Your task to perform on an android device: Go to accessibility settings Image 0: 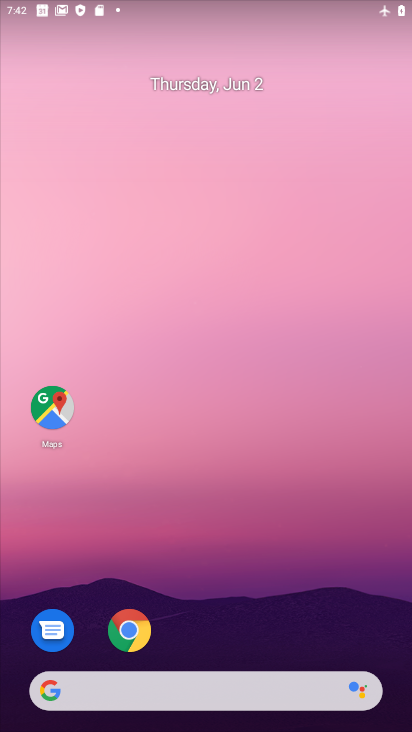
Step 0: drag from (138, 725) to (92, 23)
Your task to perform on an android device: Go to accessibility settings Image 1: 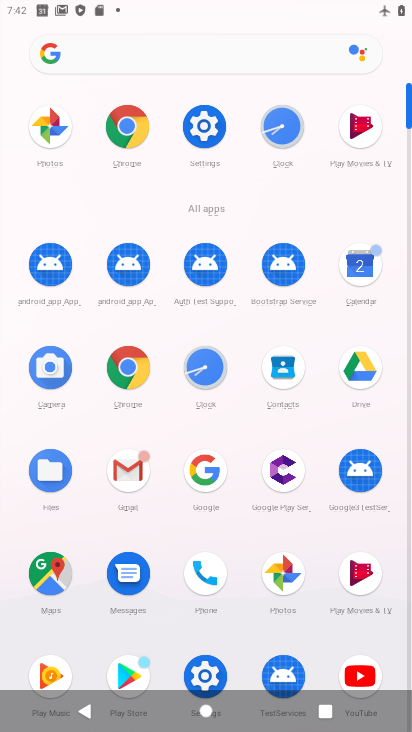
Step 1: click (208, 135)
Your task to perform on an android device: Go to accessibility settings Image 2: 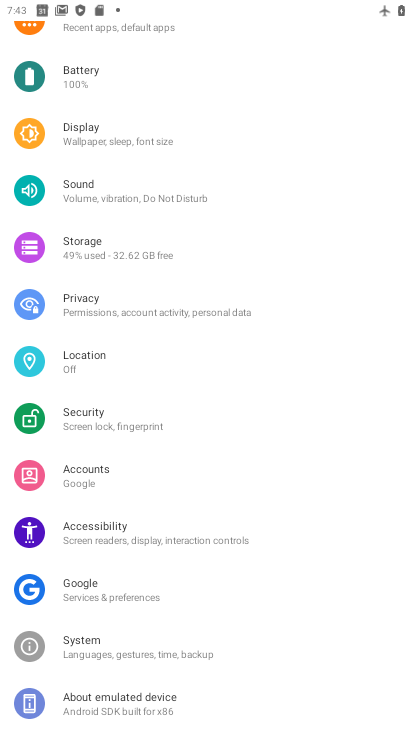
Step 2: click (94, 536)
Your task to perform on an android device: Go to accessibility settings Image 3: 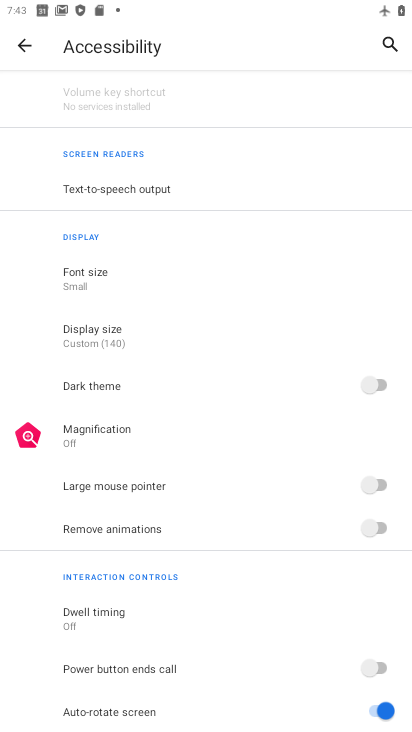
Step 3: task complete